Your task to perform on an android device: open app "Facebook Lite" (install if not already installed) and go to login screen Image 0: 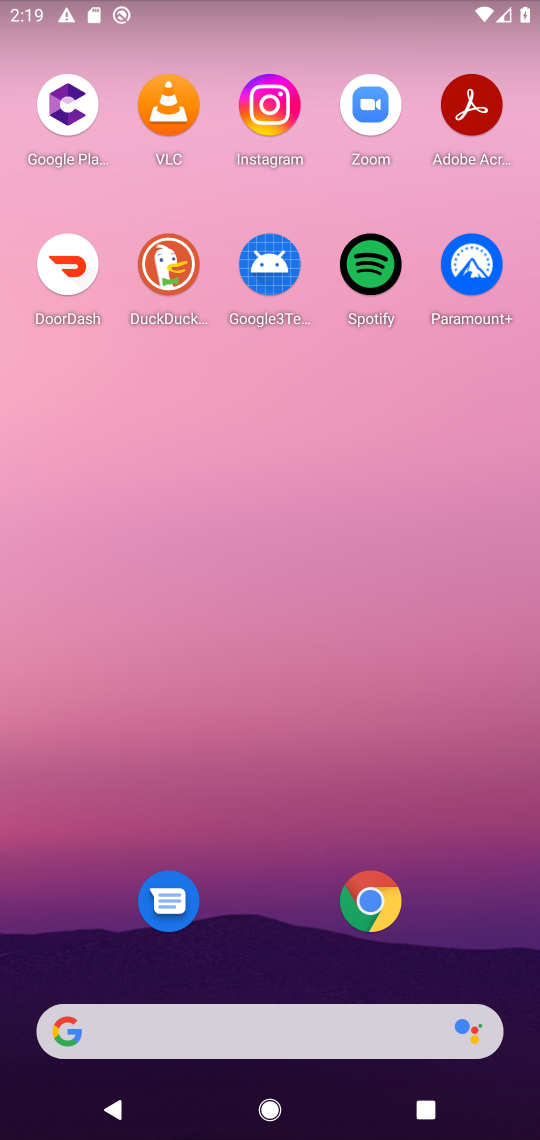
Step 0: drag from (500, 966) to (431, 146)
Your task to perform on an android device: open app "Facebook Lite" (install if not already installed) and go to login screen Image 1: 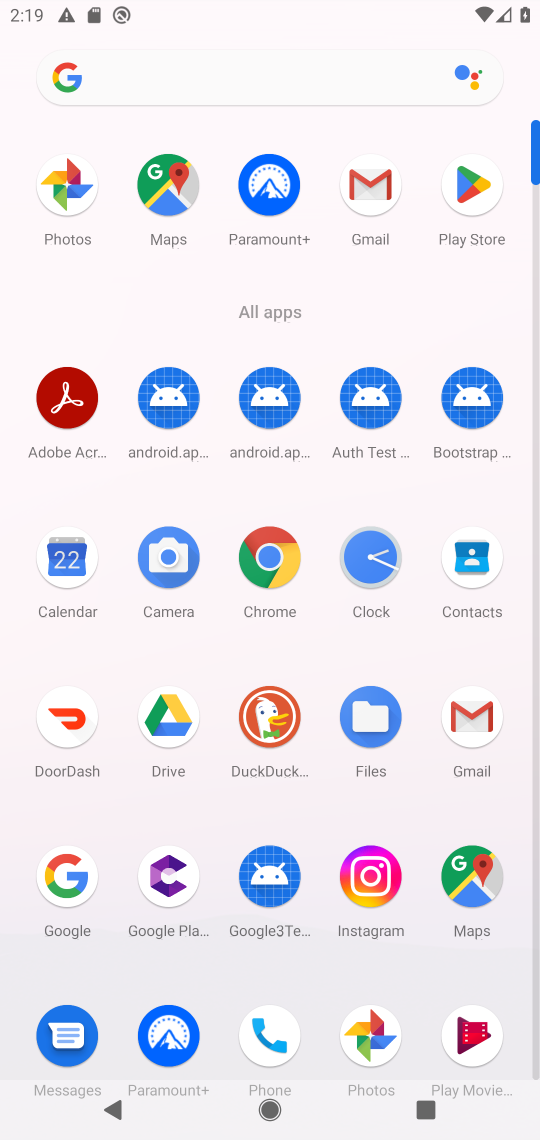
Step 1: click (471, 180)
Your task to perform on an android device: open app "Facebook Lite" (install if not already installed) and go to login screen Image 2: 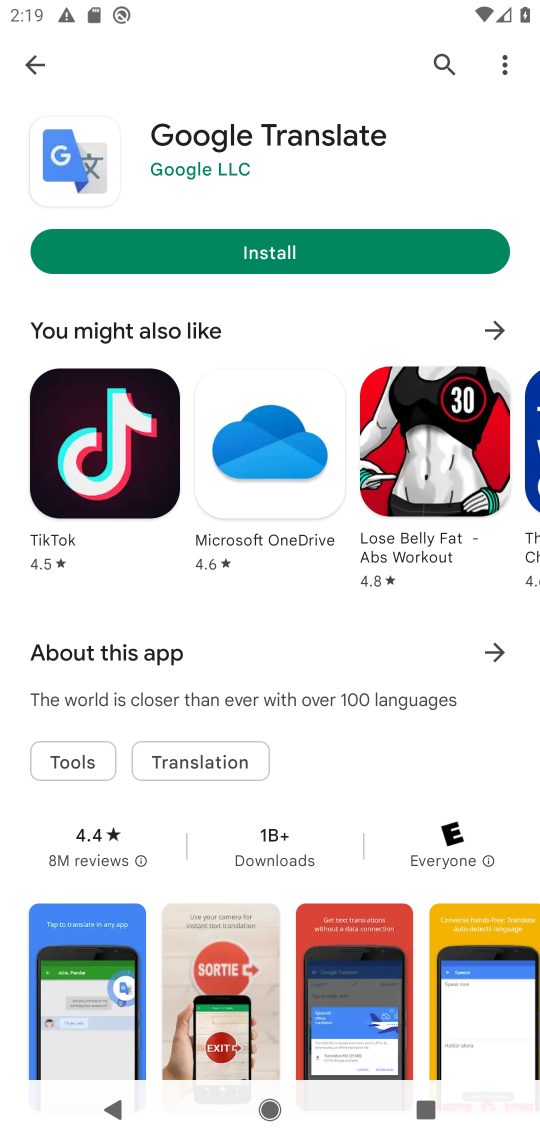
Step 2: click (436, 60)
Your task to perform on an android device: open app "Facebook Lite" (install if not already installed) and go to login screen Image 3: 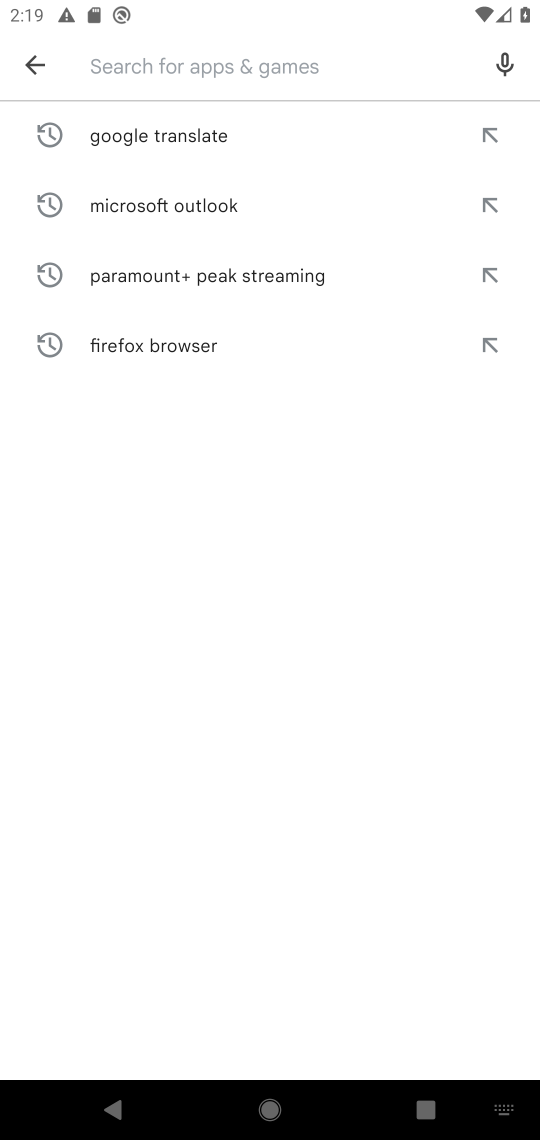
Step 3: type "Facebook Lite"
Your task to perform on an android device: open app "Facebook Lite" (install if not already installed) and go to login screen Image 4: 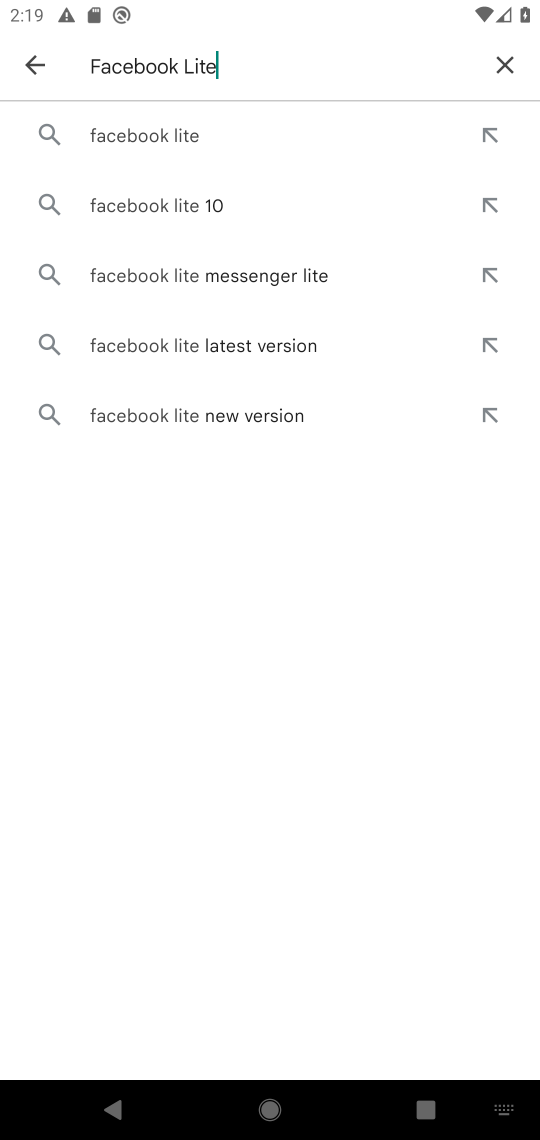
Step 4: click (125, 127)
Your task to perform on an android device: open app "Facebook Lite" (install if not already installed) and go to login screen Image 5: 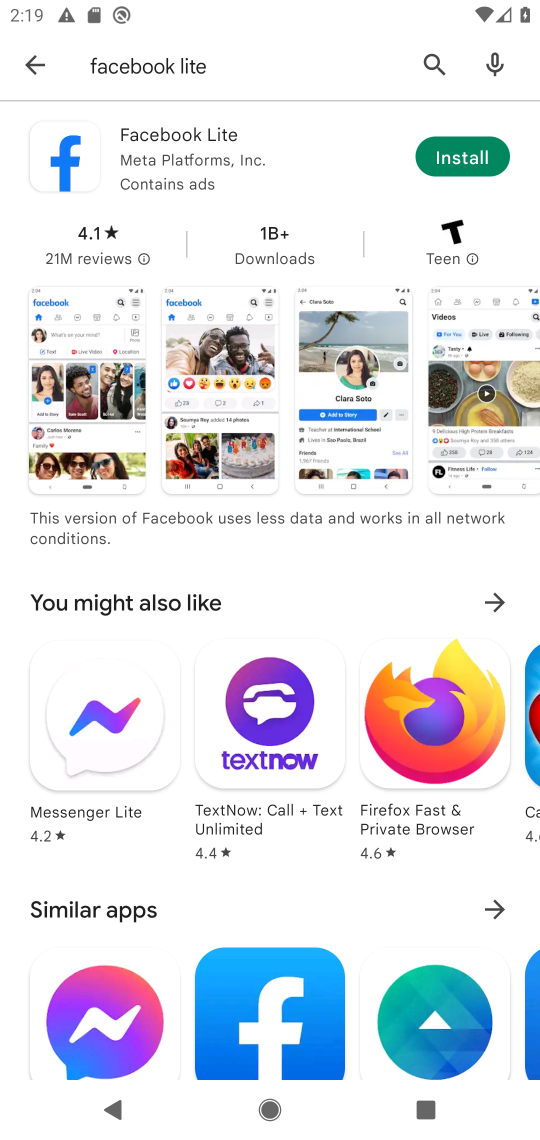
Step 5: click (130, 138)
Your task to perform on an android device: open app "Facebook Lite" (install if not already installed) and go to login screen Image 6: 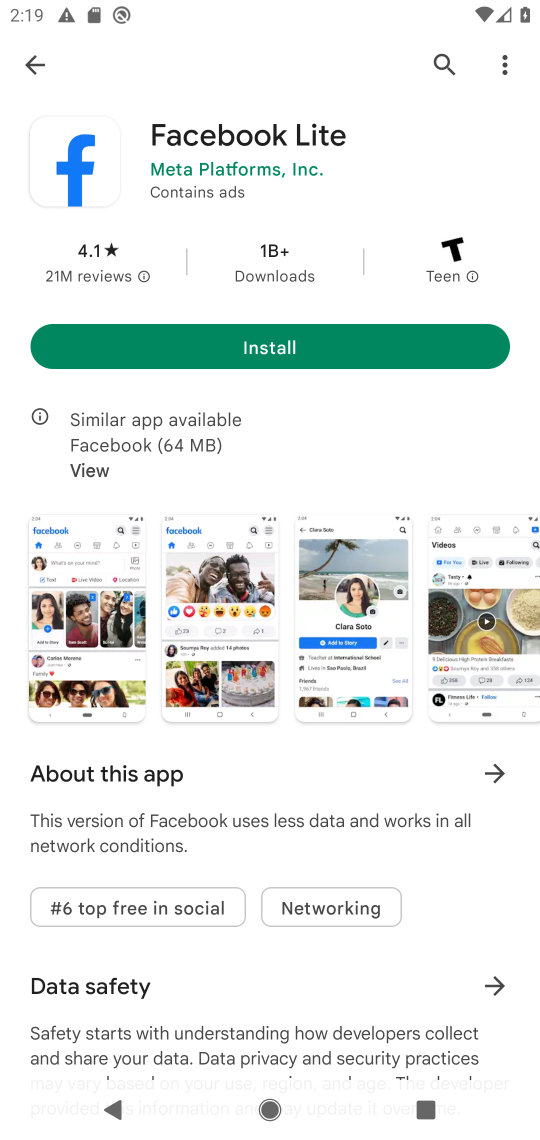
Step 6: click (269, 350)
Your task to perform on an android device: open app "Facebook Lite" (install if not already installed) and go to login screen Image 7: 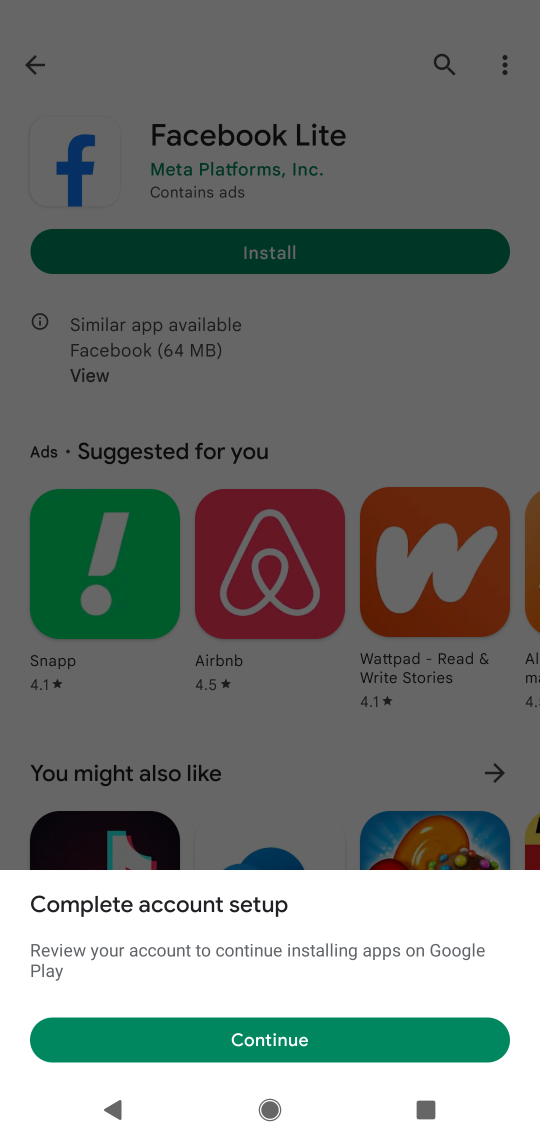
Step 7: click (256, 1042)
Your task to perform on an android device: open app "Facebook Lite" (install if not already installed) and go to login screen Image 8: 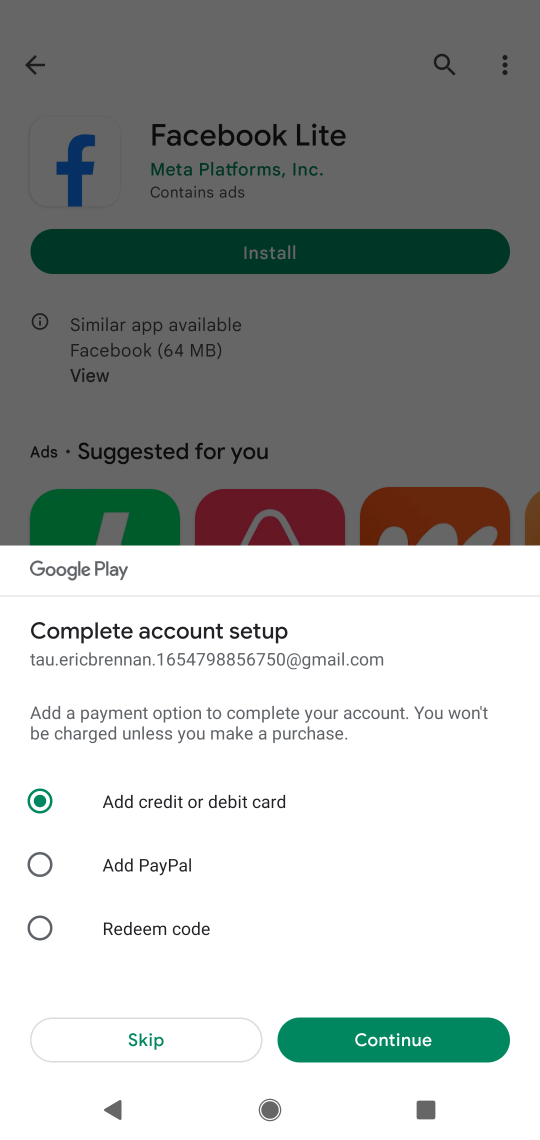
Step 8: click (139, 1039)
Your task to perform on an android device: open app "Facebook Lite" (install if not already installed) and go to login screen Image 9: 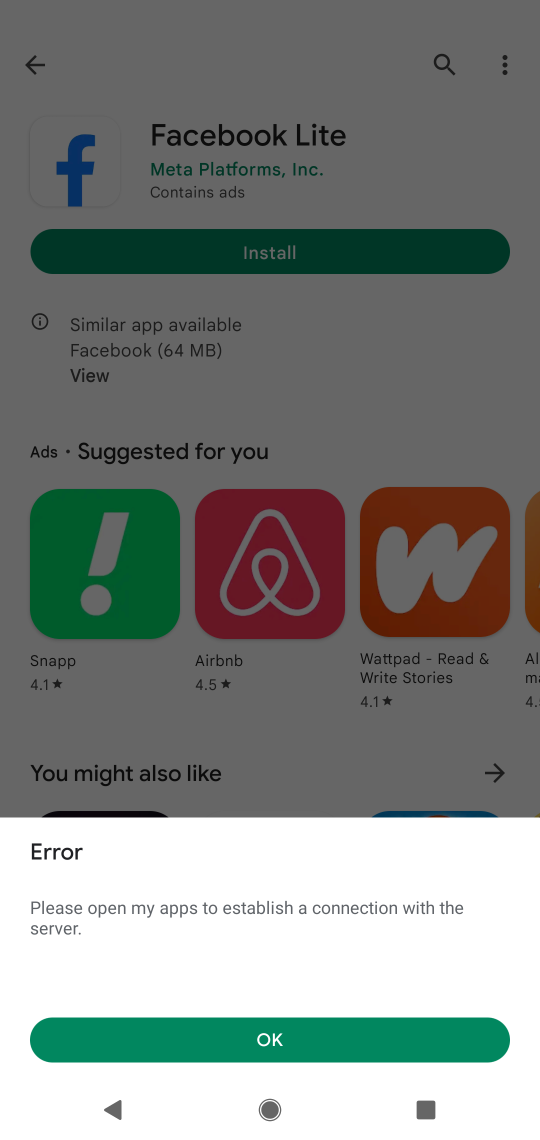
Step 9: click (266, 1049)
Your task to perform on an android device: open app "Facebook Lite" (install if not already installed) and go to login screen Image 10: 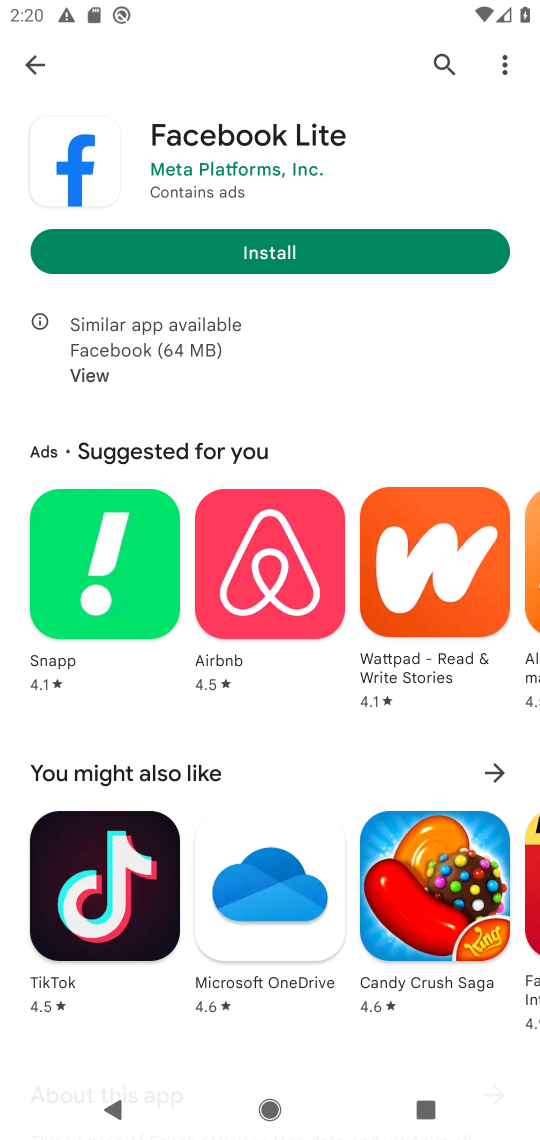
Step 10: click (264, 250)
Your task to perform on an android device: open app "Facebook Lite" (install if not already installed) and go to login screen Image 11: 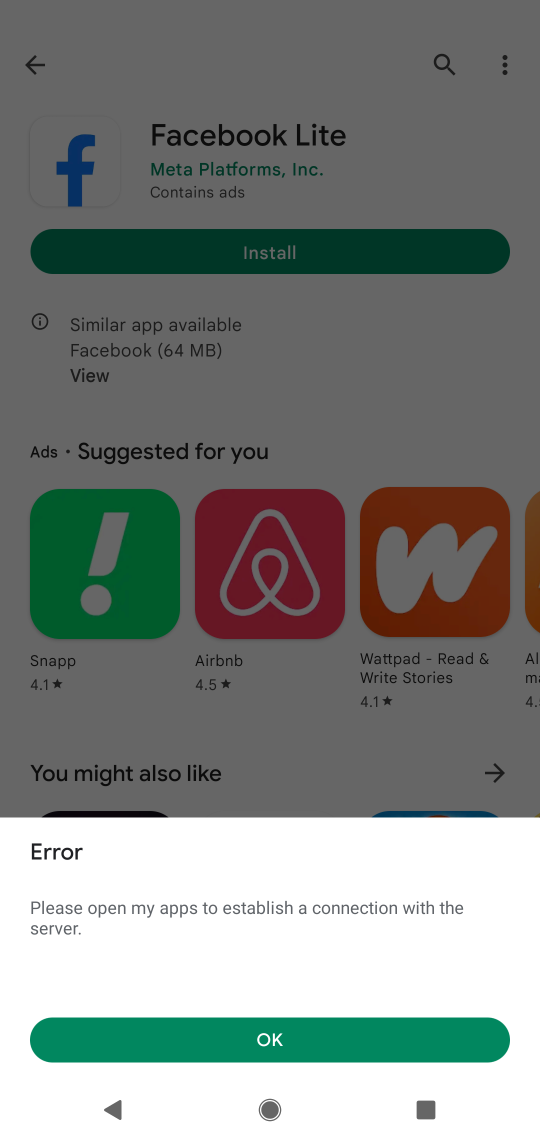
Step 11: click (265, 1041)
Your task to perform on an android device: open app "Facebook Lite" (install if not already installed) and go to login screen Image 12: 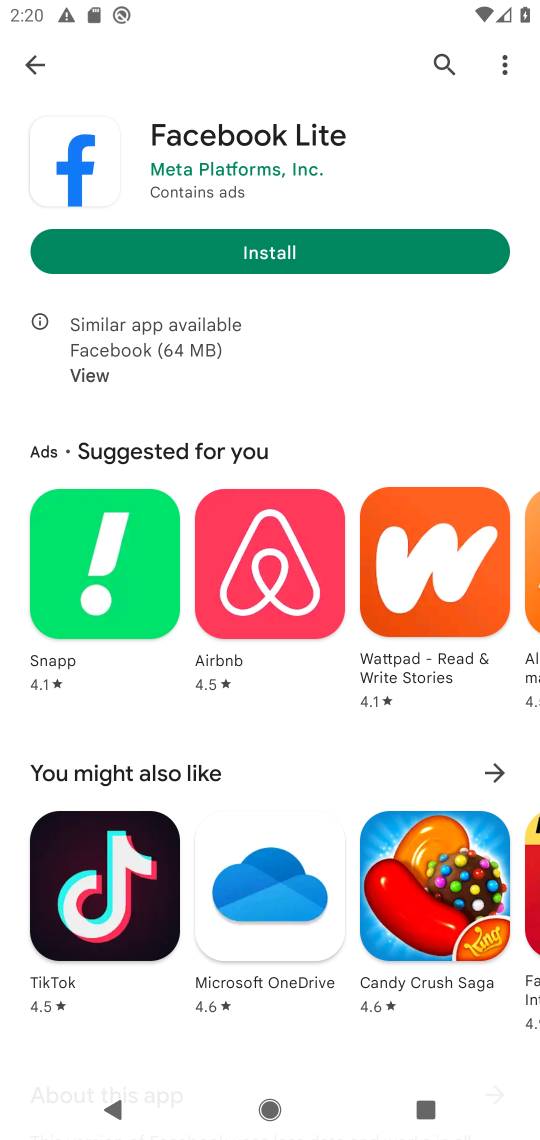
Step 12: task complete